Your task to perform on an android device: add a label to a message in the gmail app Image 0: 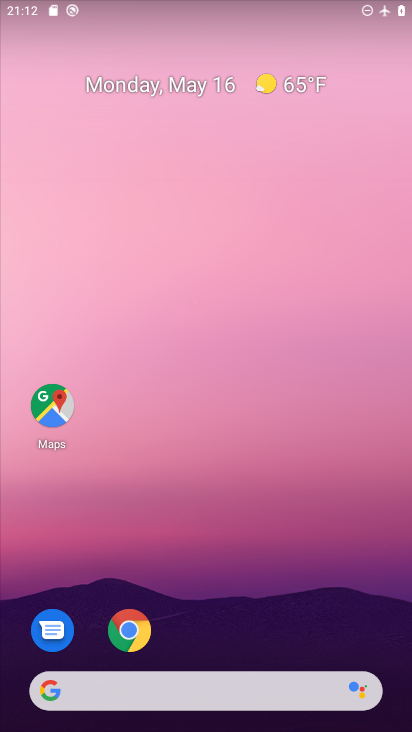
Step 0: drag from (193, 644) to (228, 223)
Your task to perform on an android device: add a label to a message in the gmail app Image 1: 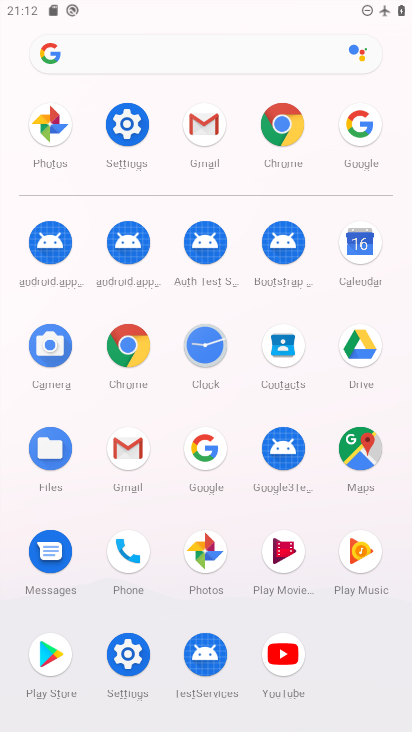
Step 1: click (134, 456)
Your task to perform on an android device: add a label to a message in the gmail app Image 2: 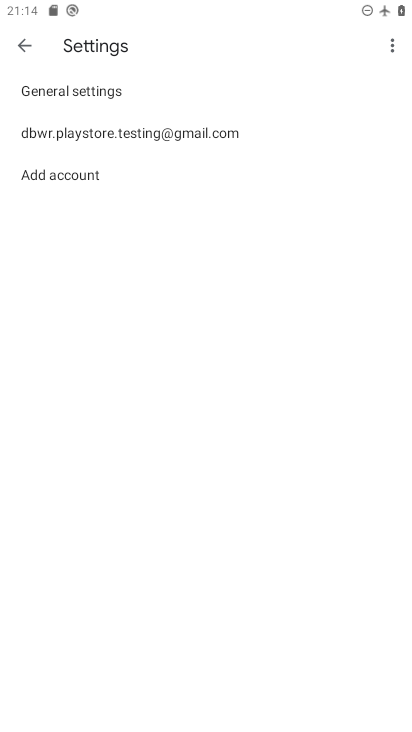
Step 2: click (15, 50)
Your task to perform on an android device: add a label to a message in the gmail app Image 3: 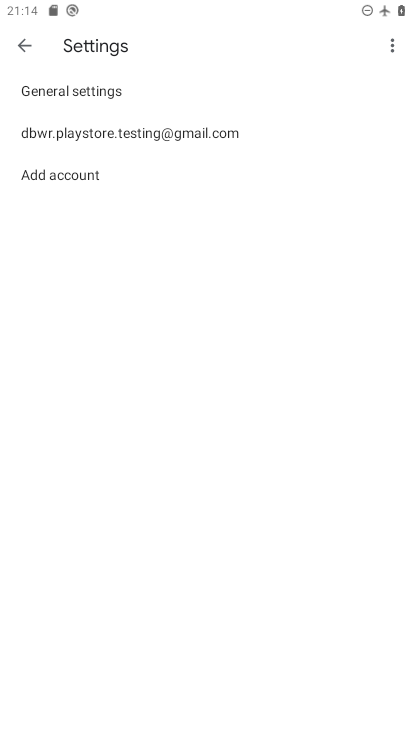
Step 3: click (24, 47)
Your task to perform on an android device: add a label to a message in the gmail app Image 4: 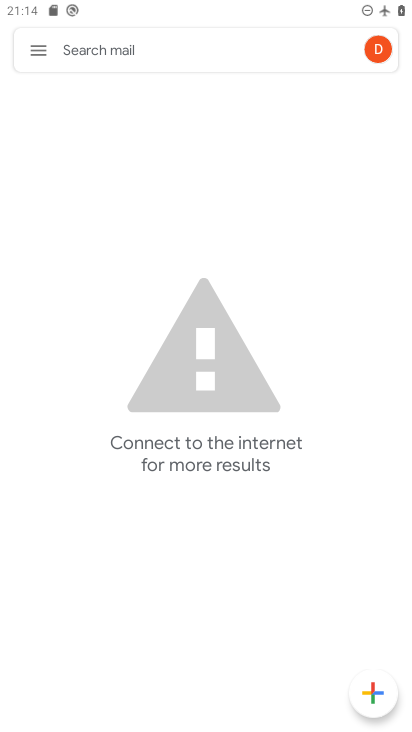
Step 4: click (30, 52)
Your task to perform on an android device: add a label to a message in the gmail app Image 5: 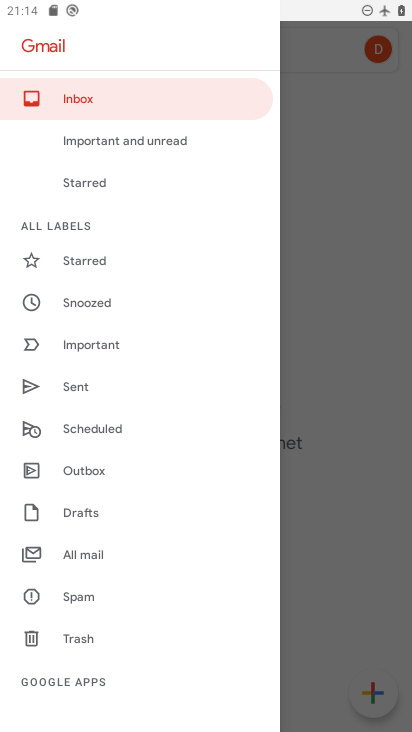
Step 5: click (94, 560)
Your task to perform on an android device: add a label to a message in the gmail app Image 6: 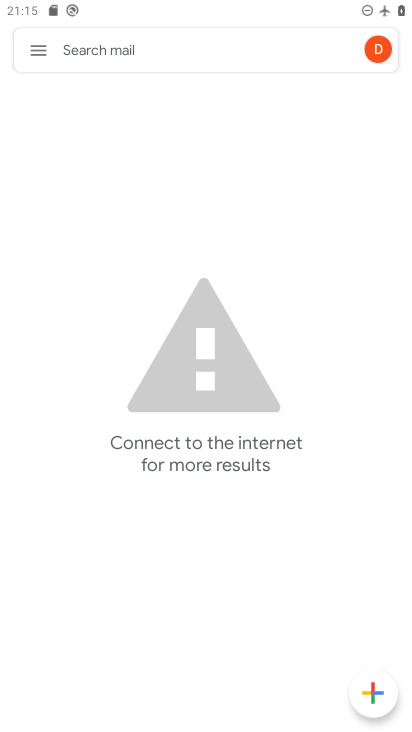
Step 6: task complete